Your task to perform on an android device: open wifi settings Image 0: 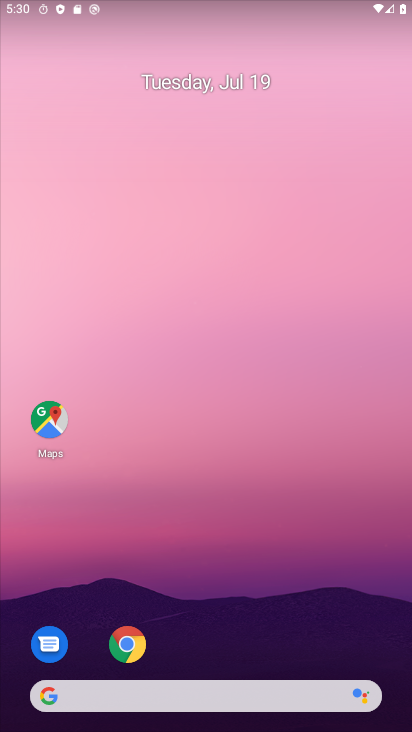
Step 0: drag from (235, 596) to (241, 181)
Your task to perform on an android device: open wifi settings Image 1: 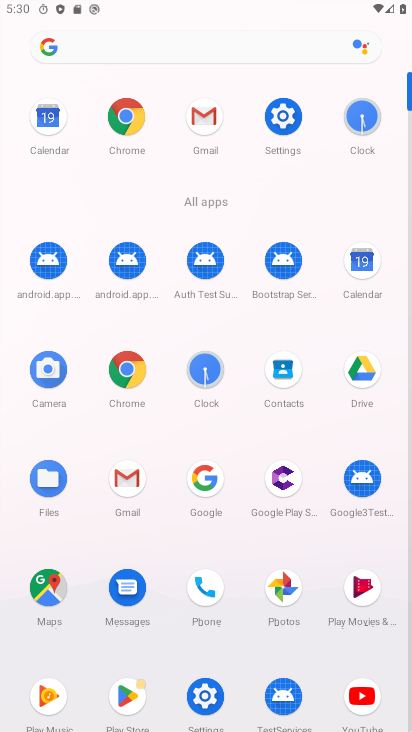
Step 1: click (271, 114)
Your task to perform on an android device: open wifi settings Image 2: 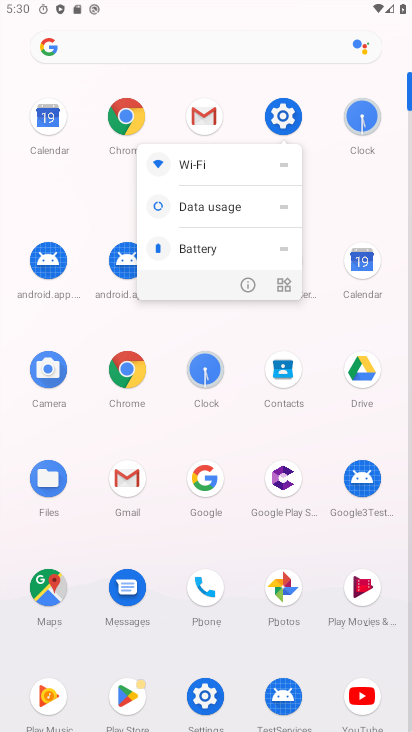
Step 2: click (285, 123)
Your task to perform on an android device: open wifi settings Image 3: 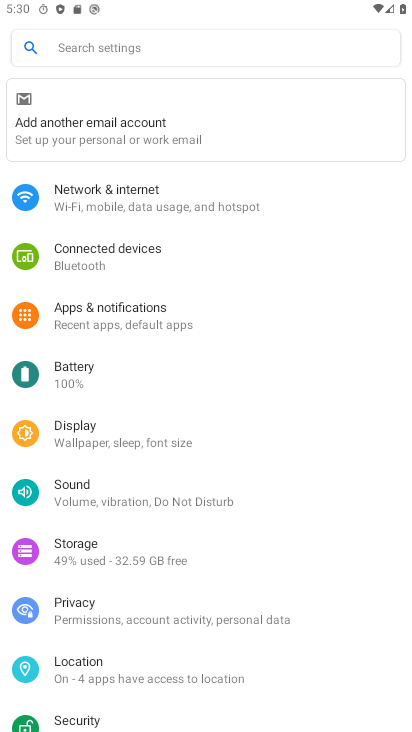
Step 3: click (141, 196)
Your task to perform on an android device: open wifi settings Image 4: 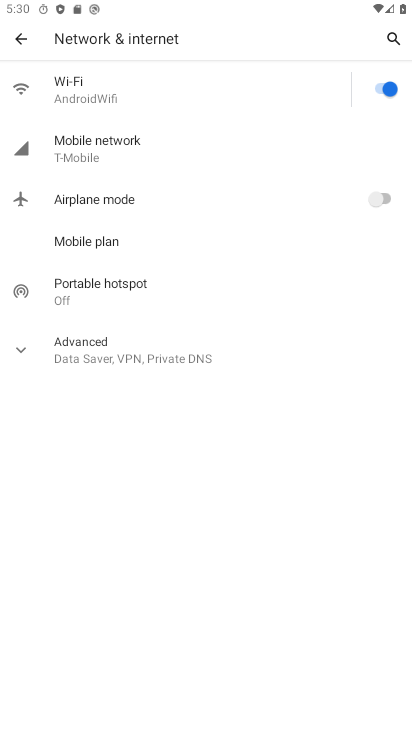
Step 4: task complete